Your task to perform on an android device: What's the weather going to be this weekend? Image 0: 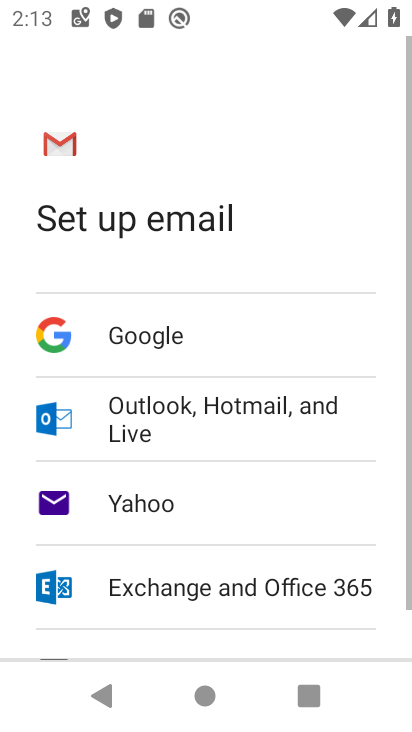
Step 0: press home button
Your task to perform on an android device: What's the weather going to be this weekend? Image 1: 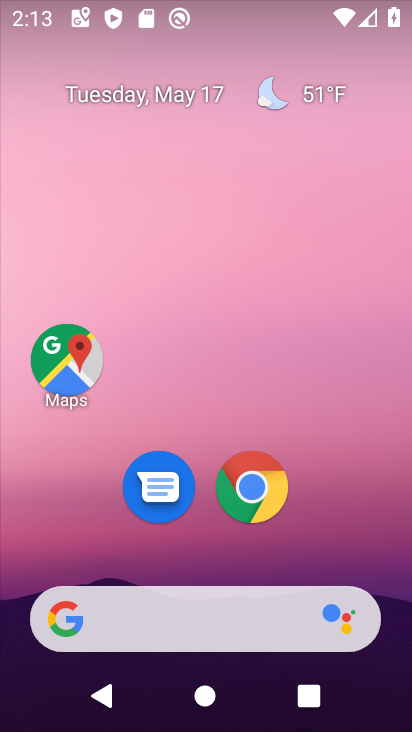
Step 1: click (297, 104)
Your task to perform on an android device: What's the weather going to be this weekend? Image 2: 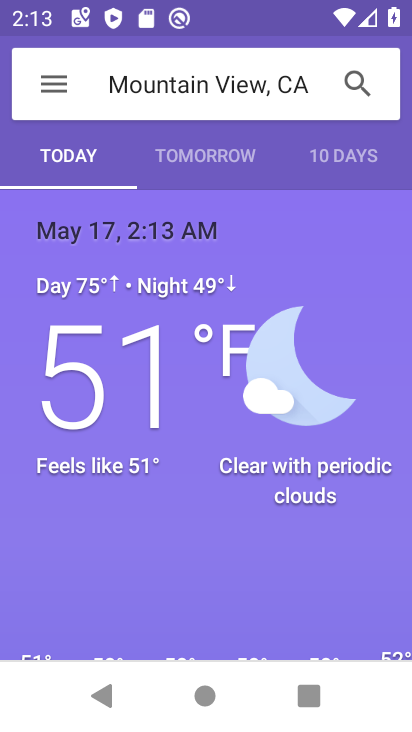
Step 2: click (361, 166)
Your task to perform on an android device: What's the weather going to be this weekend? Image 3: 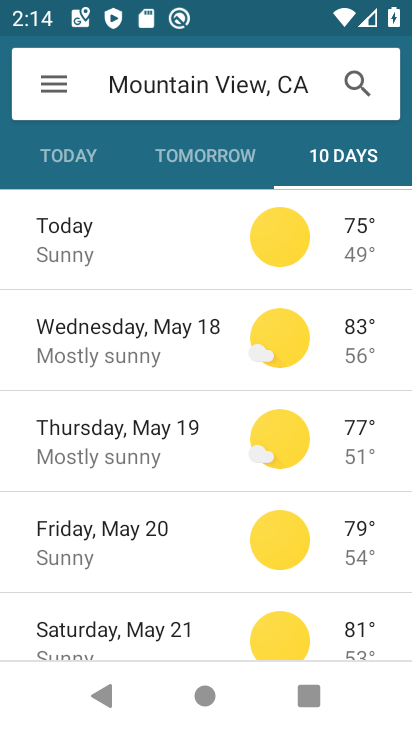
Step 3: task complete